Your task to perform on an android device: change the clock display to digital Image 0: 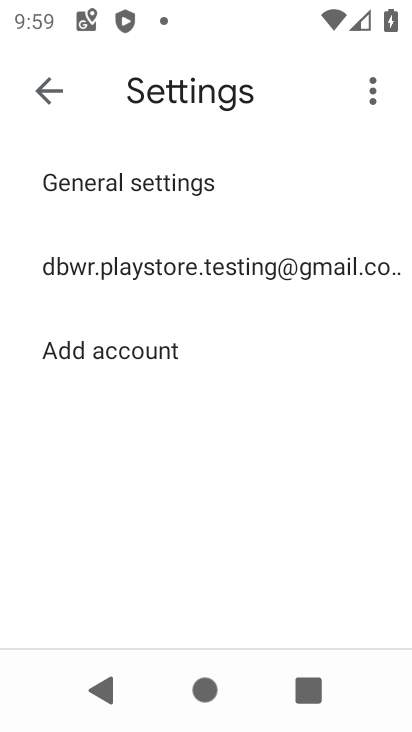
Step 0: press home button
Your task to perform on an android device: change the clock display to digital Image 1: 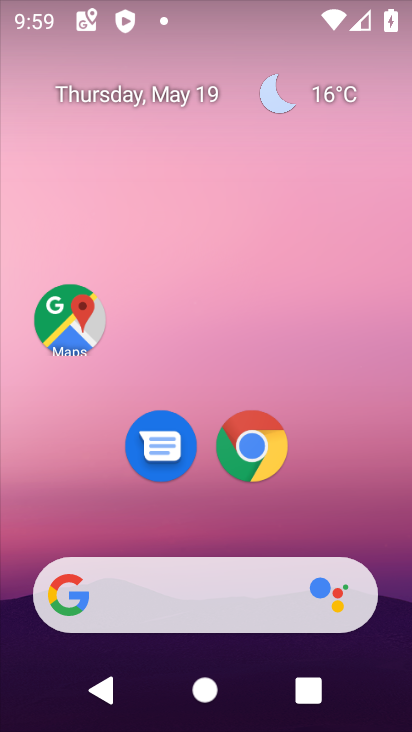
Step 1: drag from (221, 516) to (221, 10)
Your task to perform on an android device: change the clock display to digital Image 2: 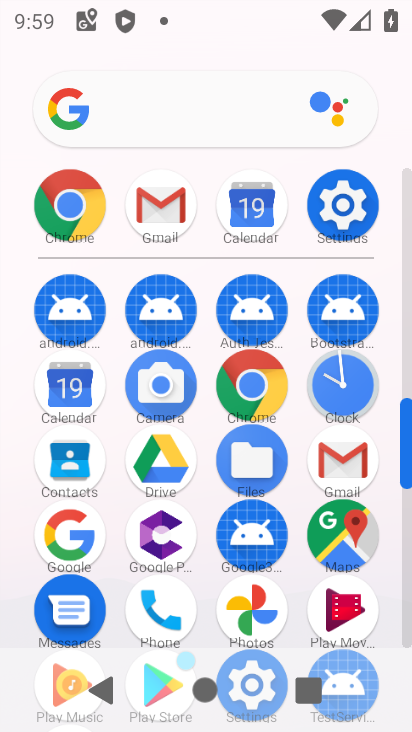
Step 2: click (344, 376)
Your task to perform on an android device: change the clock display to digital Image 3: 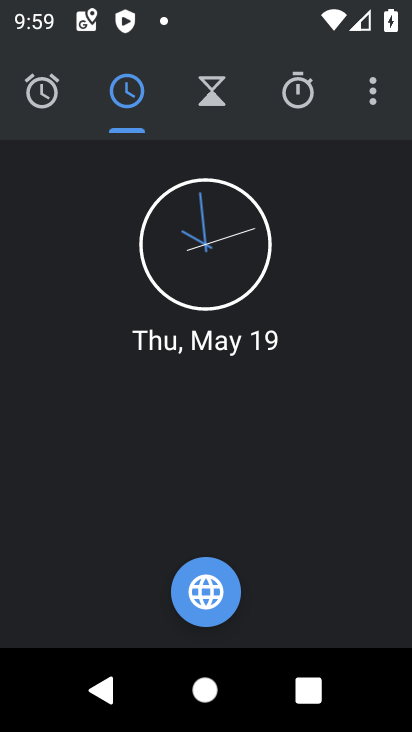
Step 3: click (379, 86)
Your task to perform on an android device: change the clock display to digital Image 4: 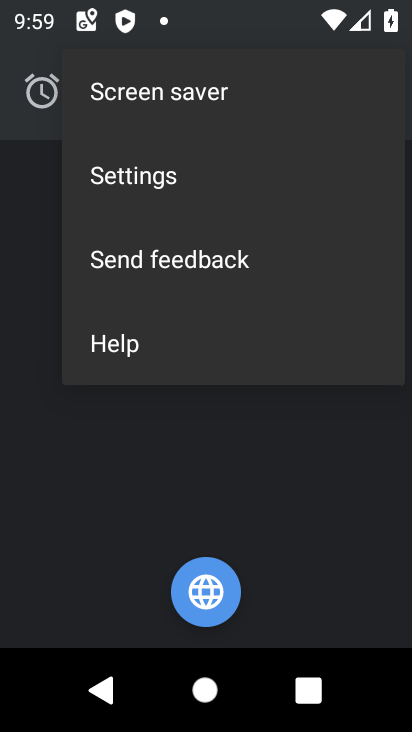
Step 4: click (134, 187)
Your task to perform on an android device: change the clock display to digital Image 5: 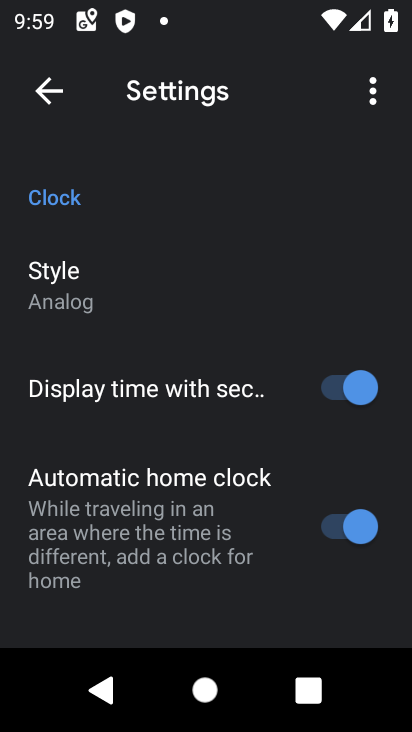
Step 5: click (98, 277)
Your task to perform on an android device: change the clock display to digital Image 6: 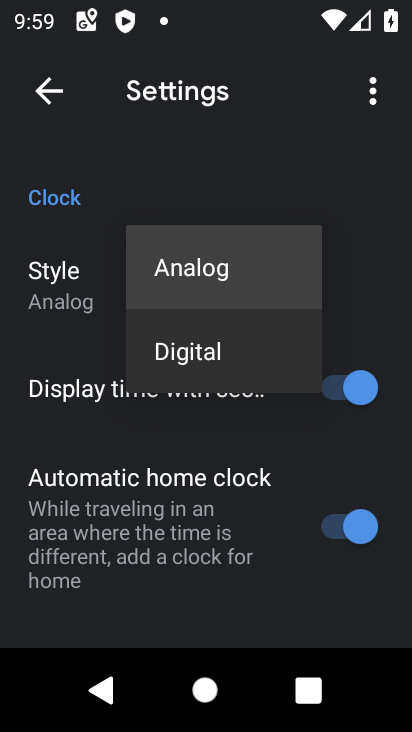
Step 6: click (194, 351)
Your task to perform on an android device: change the clock display to digital Image 7: 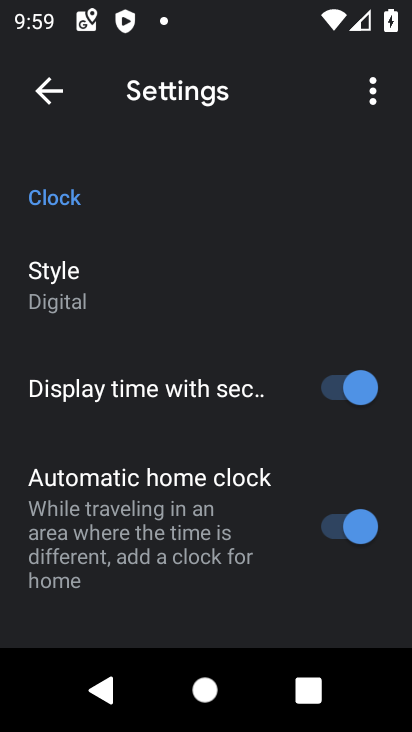
Step 7: task complete